Your task to perform on an android device: open app "Google Duo" (install if not already installed) Image 0: 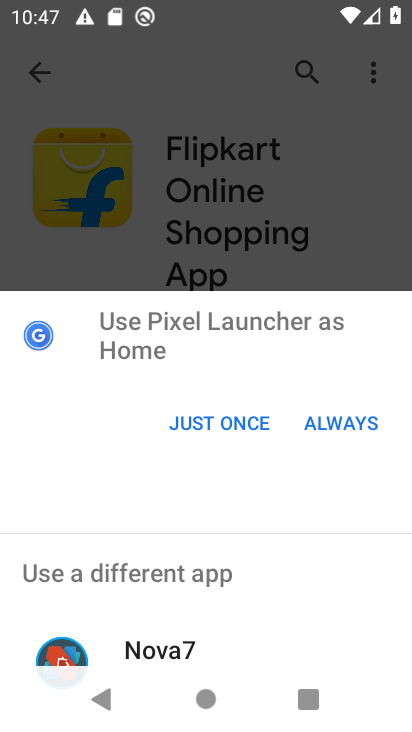
Step 0: click (219, 433)
Your task to perform on an android device: open app "Google Duo" (install if not already installed) Image 1: 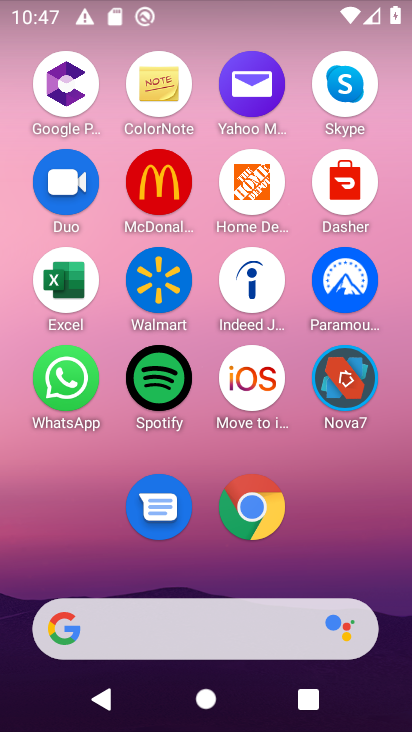
Step 1: drag from (398, 597) to (363, 19)
Your task to perform on an android device: open app "Google Duo" (install if not already installed) Image 2: 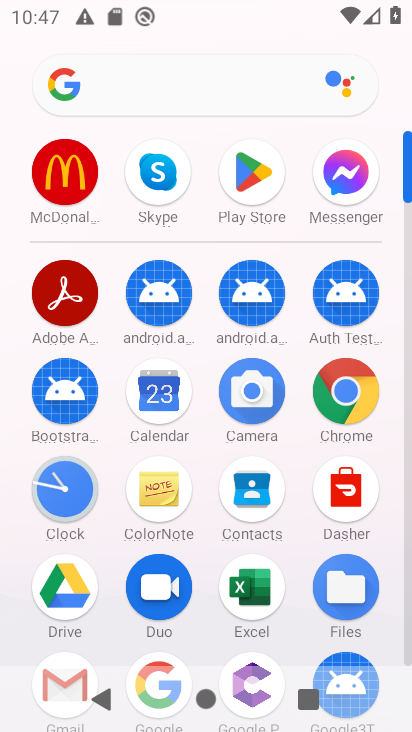
Step 2: click (255, 172)
Your task to perform on an android device: open app "Google Duo" (install if not already installed) Image 3: 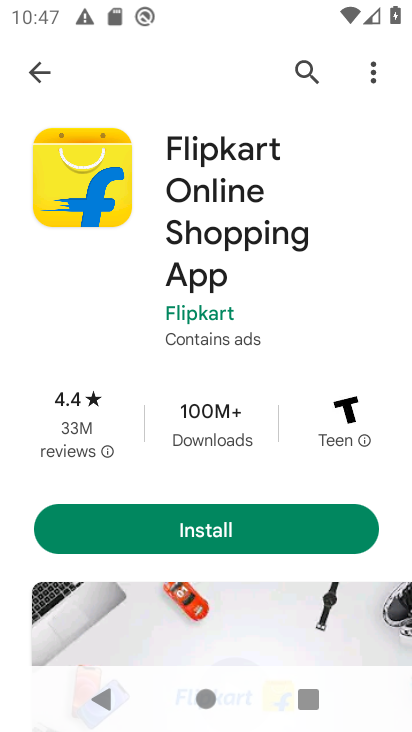
Step 3: click (303, 72)
Your task to perform on an android device: open app "Google Duo" (install if not already installed) Image 4: 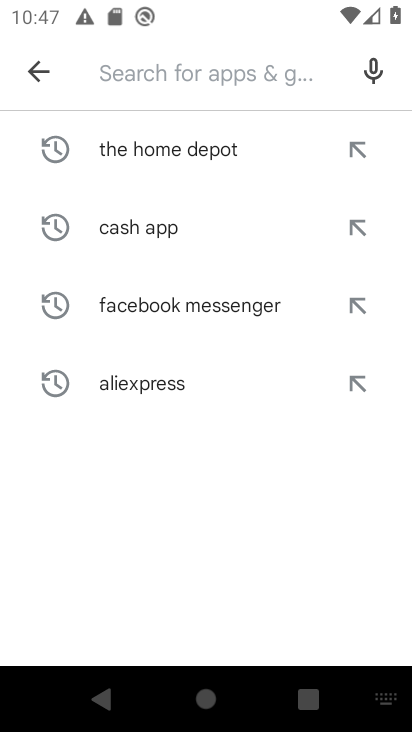
Step 4: type "Google Duo"
Your task to perform on an android device: open app "Google Duo" (install if not already installed) Image 5: 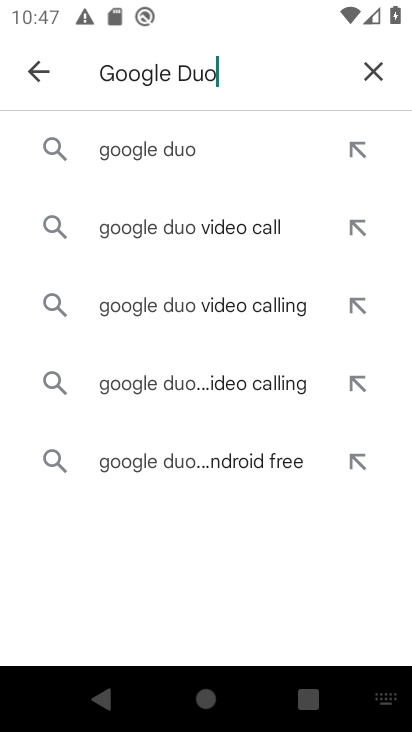
Step 5: click (184, 153)
Your task to perform on an android device: open app "Google Duo" (install if not already installed) Image 6: 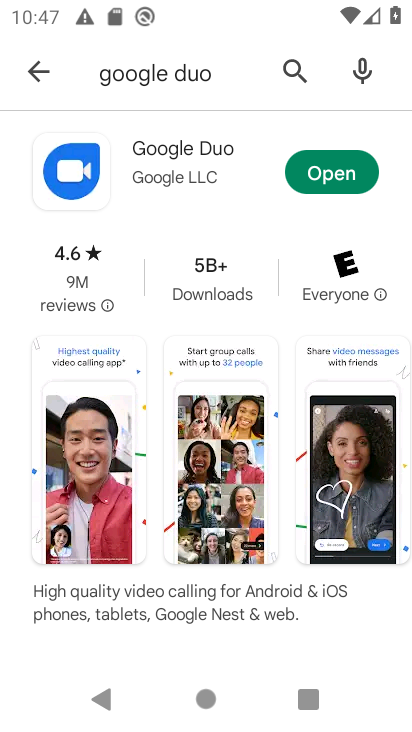
Step 6: click (337, 178)
Your task to perform on an android device: open app "Google Duo" (install if not already installed) Image 7: 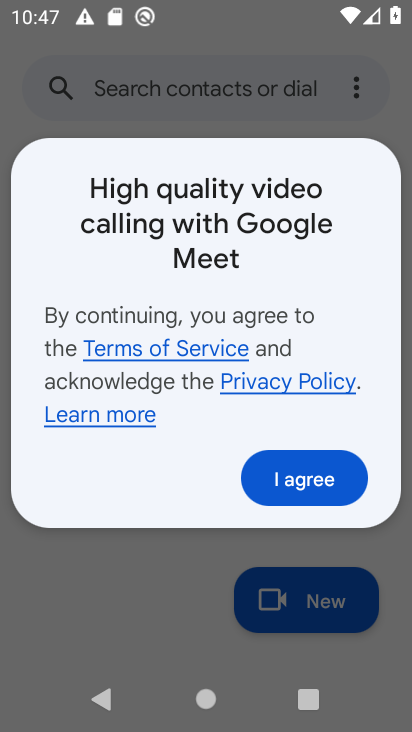
Step 7: click (312, 482)
Your task to perform on an android device: open app "Google Duo" (install if not already installed) Image 8: 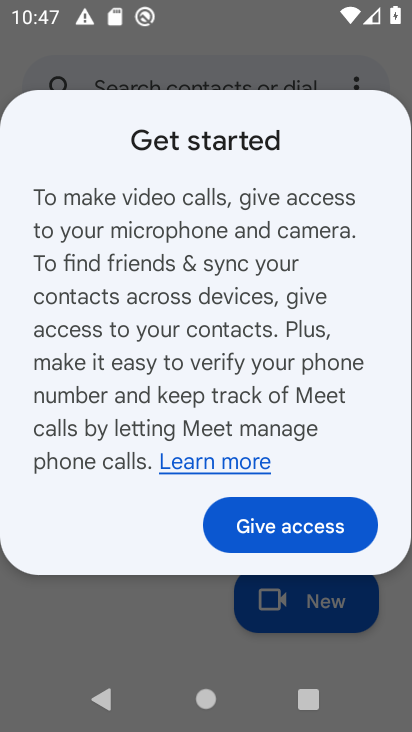
Step 8: click (281, 525)
Your task to perform on an android device: open app "Google Duo" (install if not already installed) Image 9: 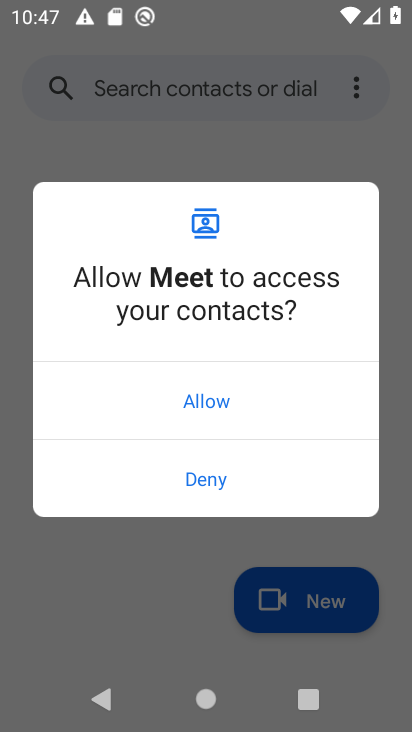
Step 9: click (210, 401)
Your task to perform on an android device: open app "Google Duo" (install if not already installed) Image 10: 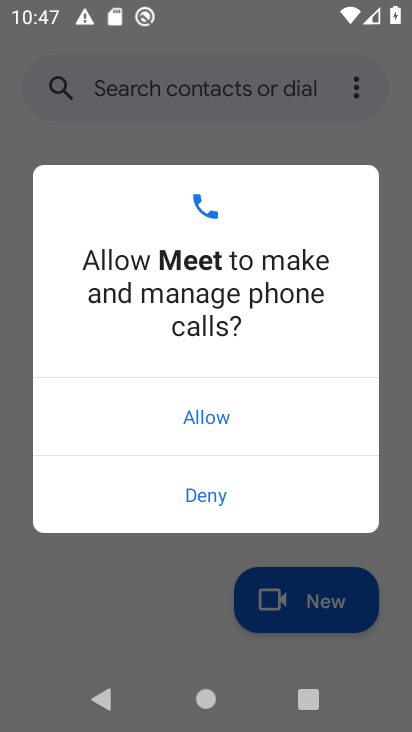
Step 10: click (210, 401)
Your task to perform on an android device: open app "Google Duo" (install if not already installed) Image 11: 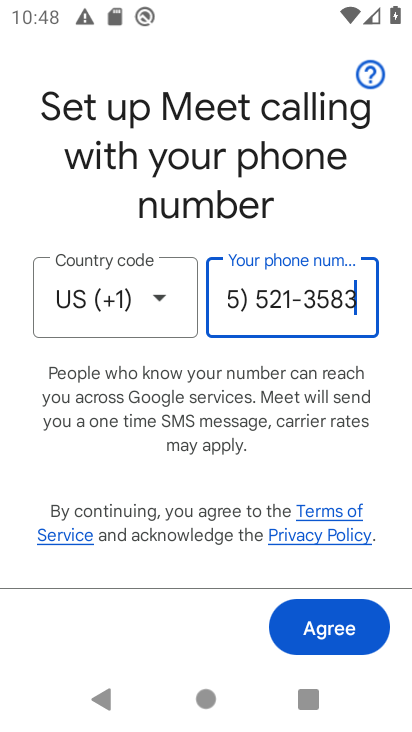
Step 11: task complete